Your task to perform on an android device: read, delete, or share a saved page in the chrome app Image 0: 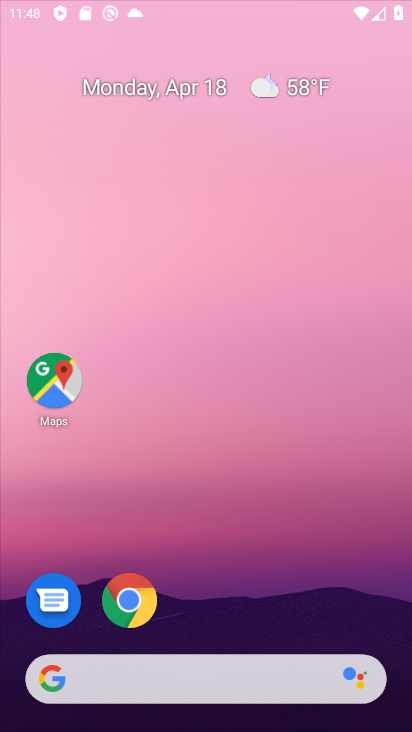
Step 0: drag from (265, 693) to (313, 243)
Your task to perform on an android device: read, delete, or share a saved page in the chrome app Image 1: 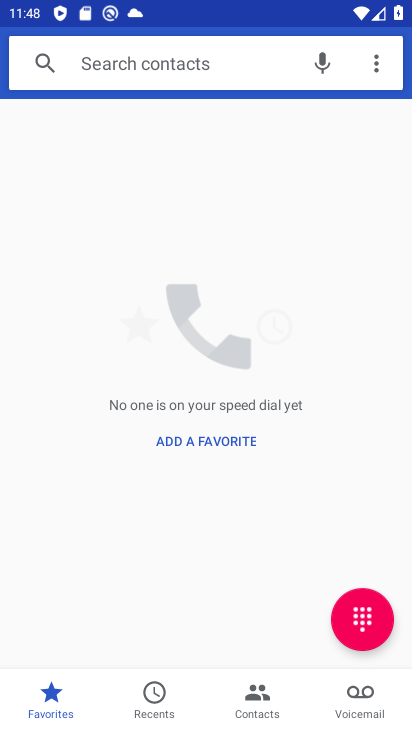
Step 1: press home button
Your task to perform on an android device: read, delete, or share a saved page in the chrome app Image 2: 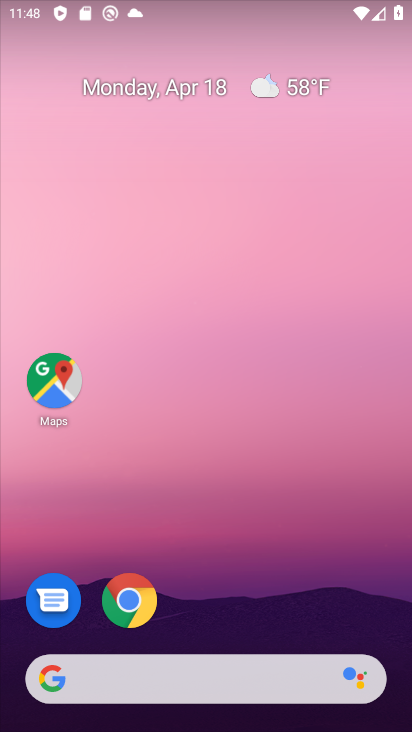
Step 2: drag from (310, 704) to (354, 284)
Your task to perform on an android device: read, delete, or share a saved page in the chrome app Image 3: 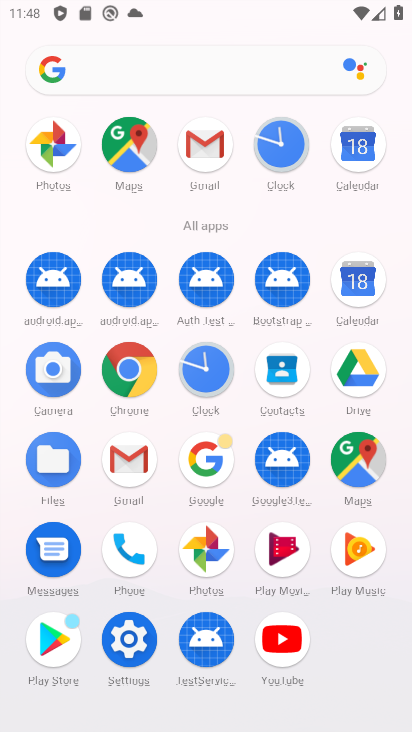
Step 3: click (132, 376)
Your task to perform on an android device: read, delete, or share a saved page in the chrome app Image 4: 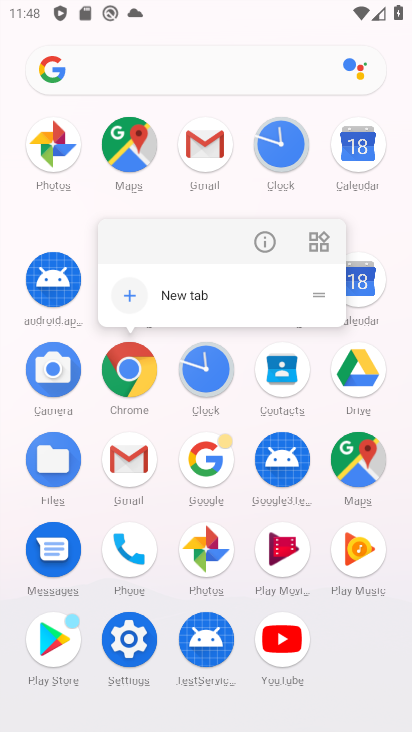
Step 4: click (134, 372)
Your task to perform on an android device: read, delete, or share a saved page in the chrome app Image 5: 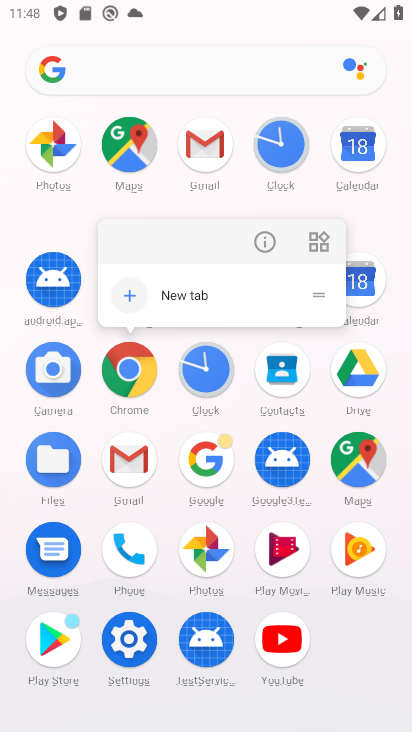
Step 5: click (134, 370)
Your task to perform on an android device: read, delete, or share a saved page in the chrome app Image 6: 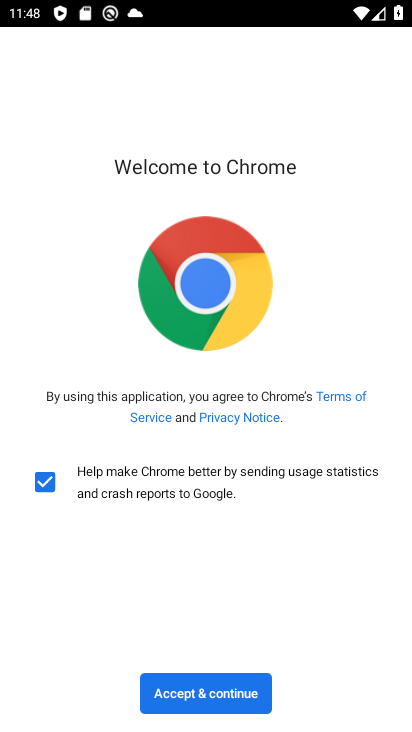
Step 6: click (147, 714)
Your task to perform on an android device: read, delete, or share a saved page in the chrome app Image 7: 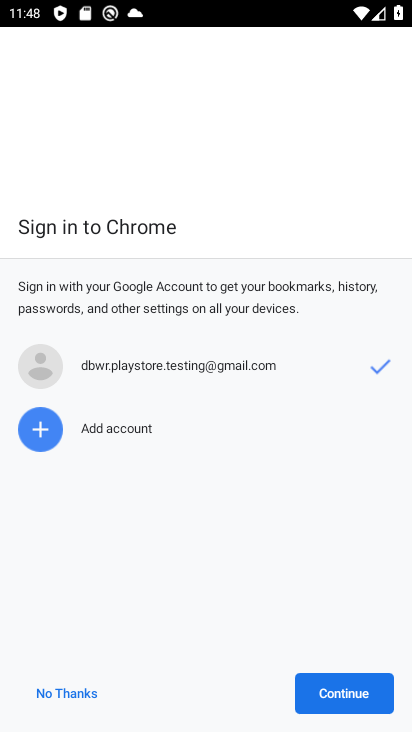
Step 7: click (307, 680)
Your task to perform on an android device: read, delete, or share a saved page in the chrome app Image 8: 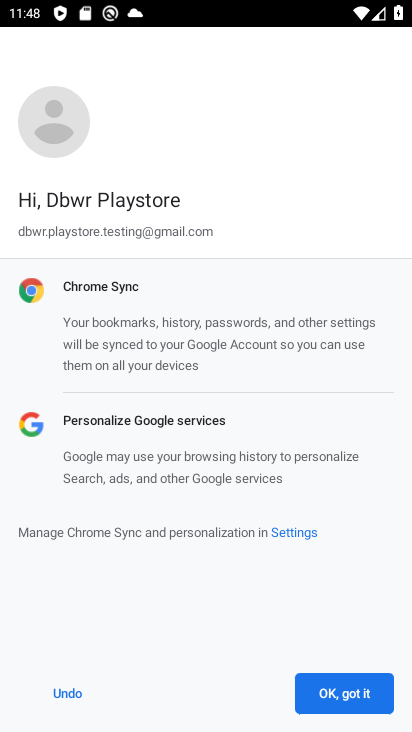
Step 8: click (342, 678)
Your task to perform on an android device: read, delete, or share a saved page in the chrome app Image 9: 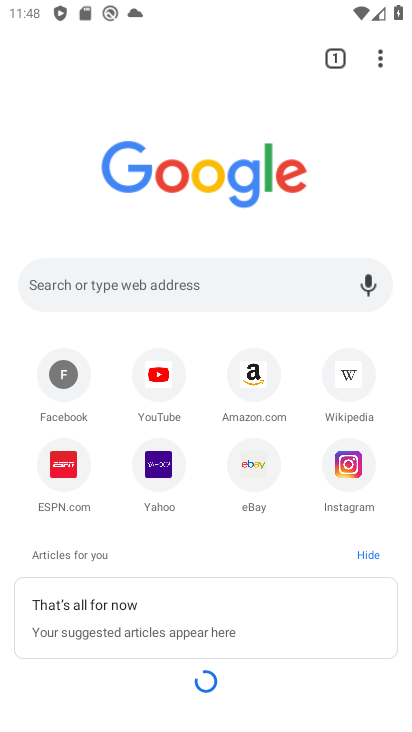
Step 9: click (375, 63)
Your task to perform on an android device: read, delete, or share a saved page in the chrome app Image 10: 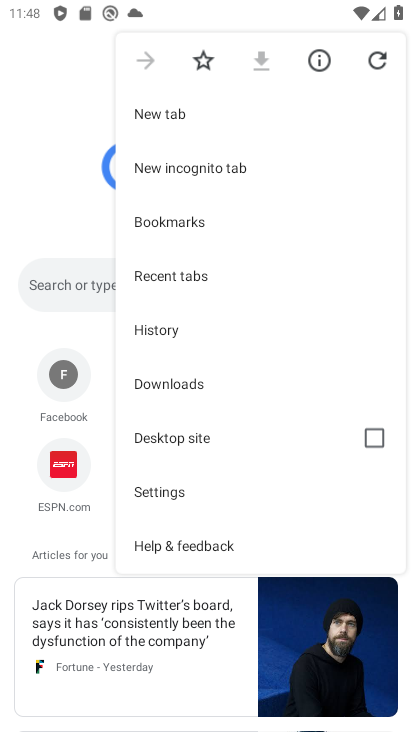
Step 10: click (186, 328)
Your task to perform on an android device: read, delete, or share a saved page in the chrome app Image 11: 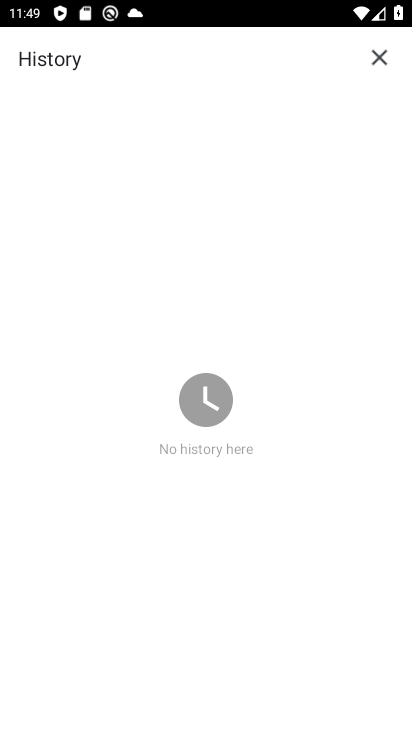
Step 11: task complete